Your task to perform on an android device: turn on priority inbox in the gmail app Image 0: 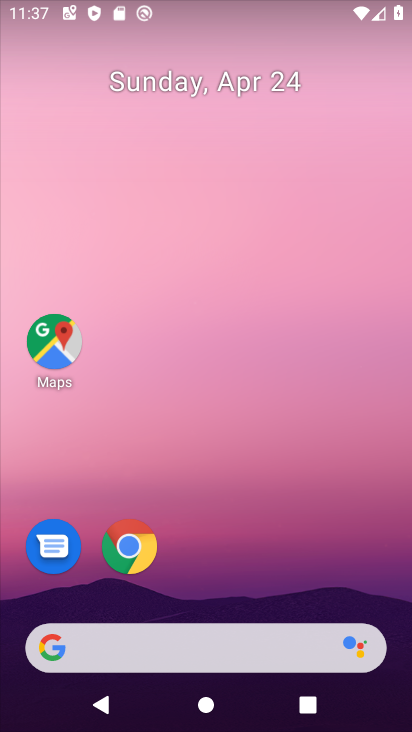
Step 0: drag from (222, 501) to (225, 187)
Your task to perform on an android device: turn on priority inbox in the gmail app Image 1: 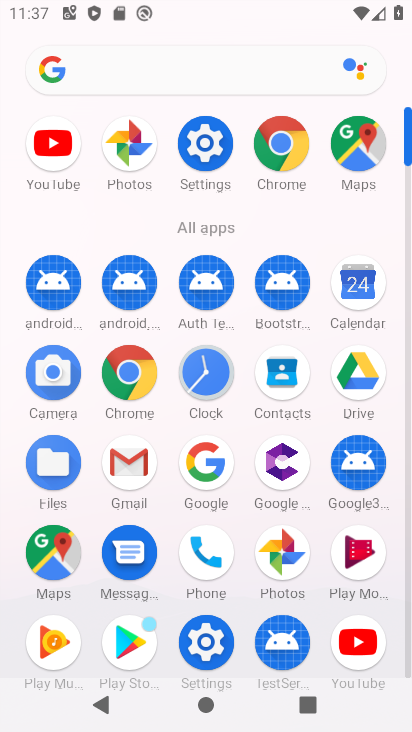
Step 1: click (114, 469)
Your task to perform on an android device: turn on priority inbox in the gmail app Image 2: 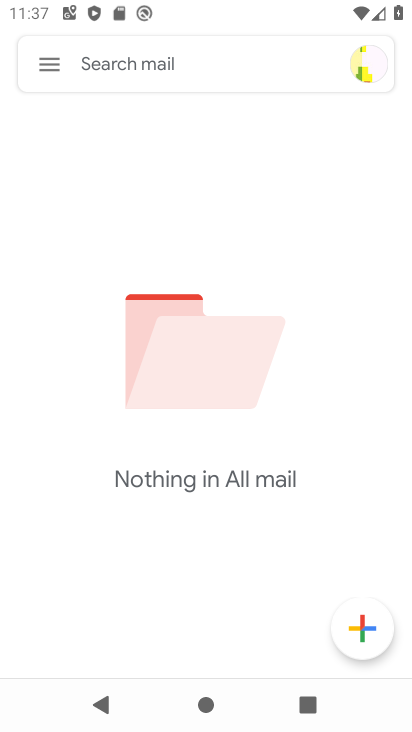
Step 2: click (51, 60)
Your task to perform on an android device: turn on priority inbox in the gmail app Image 3: 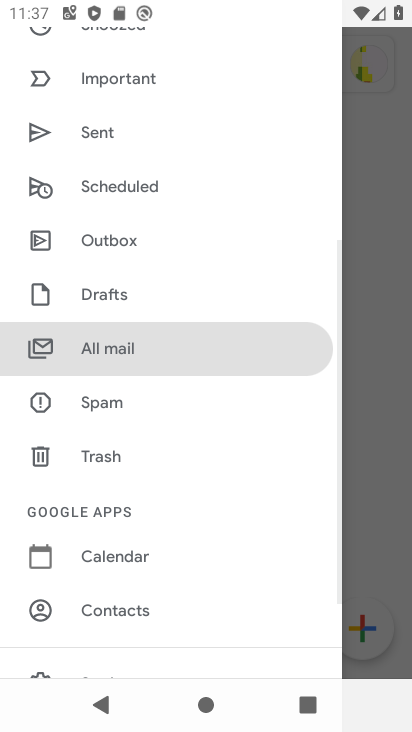
Step 3: drag from (140, 598) to (197, 324)
Your task to perform on an android device: turn on priority inbox in the gmail app Image 4: 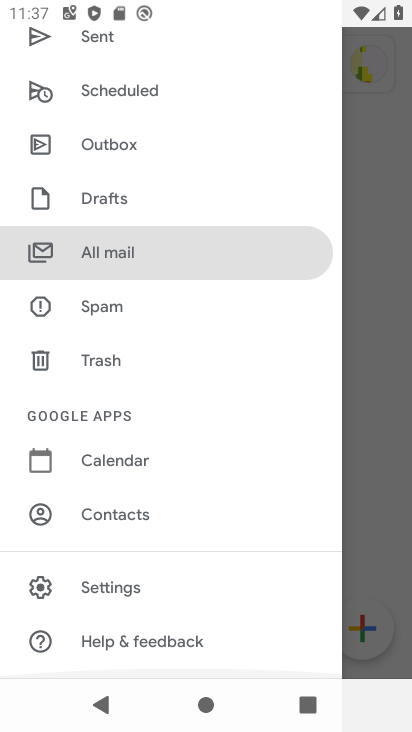
Step 4: click (131, 583)
Your task to perform on an android device: turn on priority inbox in the gmail app Image 5: 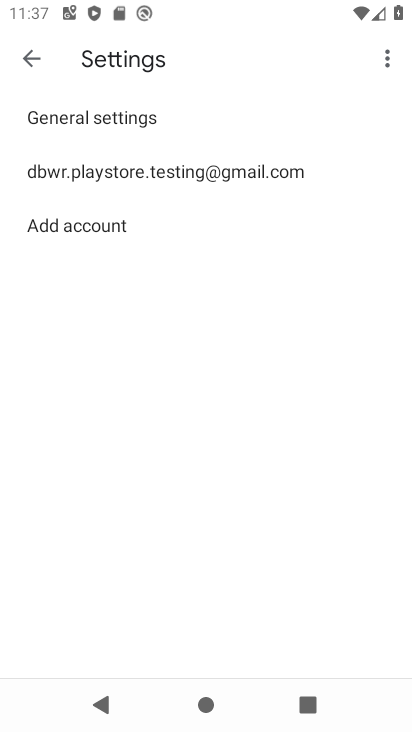
Step 5: click (263, 164)
Your task to perform on an android device: turn on priority inbox in the gmail app Image 6: 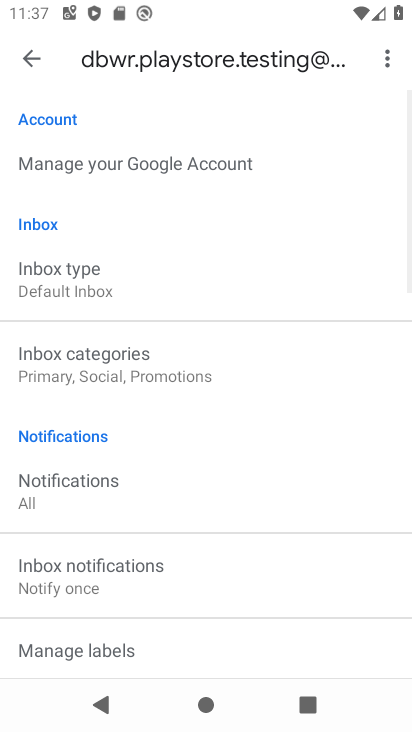
Step 6: click (107, 284)
Your task to perform on an android device: turn on priority inbox in the gmail app Image 7: 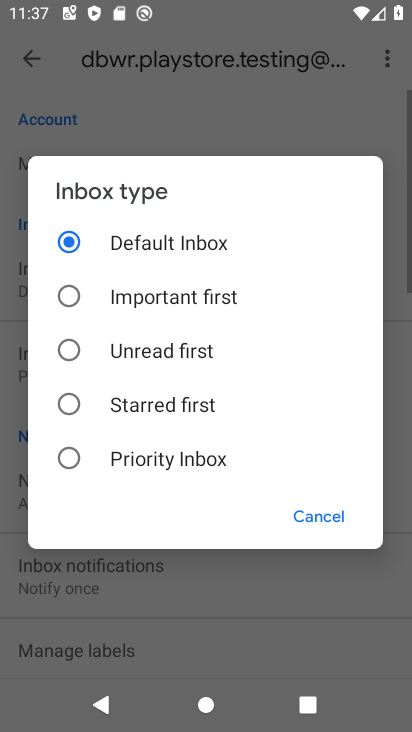
Step 7: click (112, 450)
Your task to perform on an android device: turn on priority inbox in the gmail app Image 8: 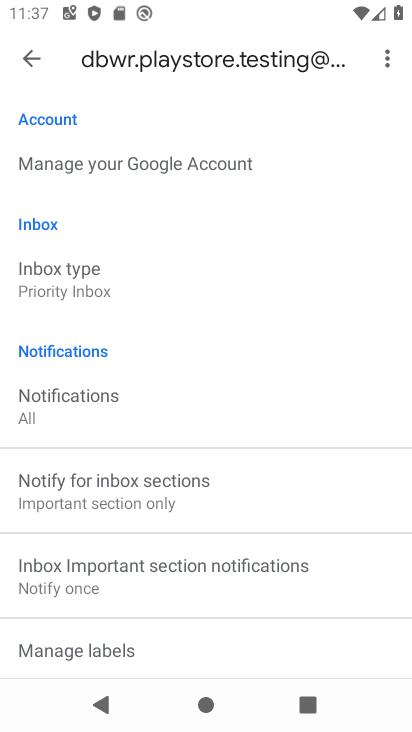
Step 8: task complete